Your task to perform on an android device: turn vacation reply on in the gmail app Image 0: 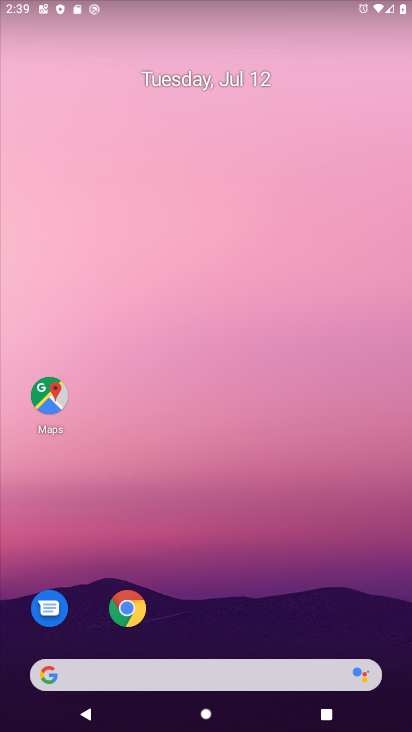
Step 0: drag from (312, 591) to (161, 79)
Your task to perform on an android device: turn vacation reply on in the gmail app Image 1: 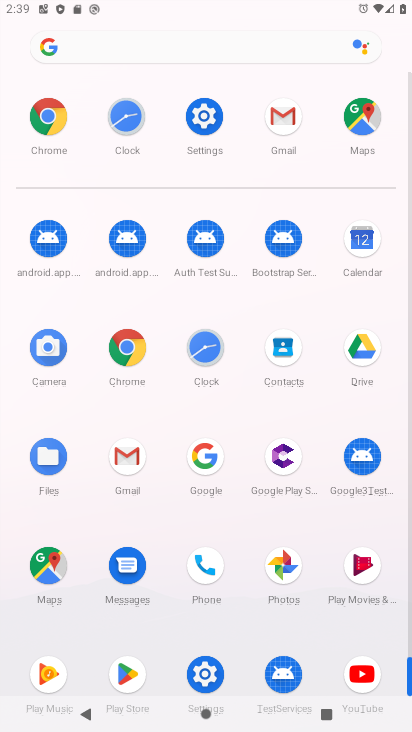
Step 1: click (272, 110)
Your task to perform on an android device: turn vacation reply on in the gmail app Image 2: 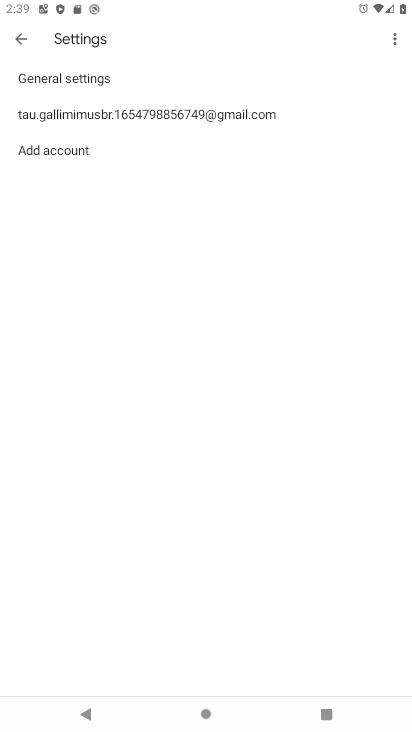
Step 2: click (198, 124)
Your task to perform on an android device: turn vacation reply on in the gmail app Image 3: 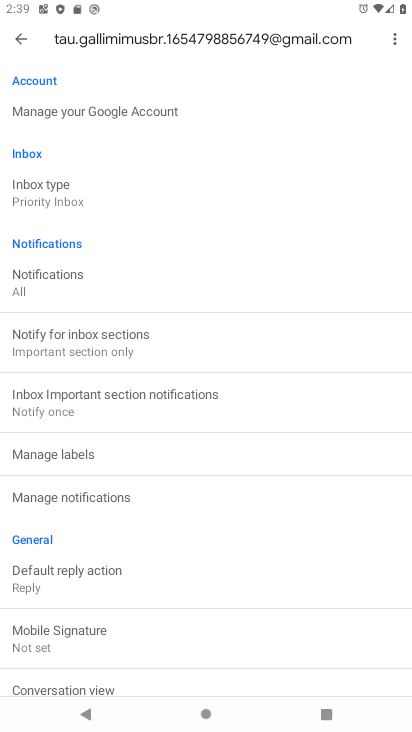
Step 3: drag from (92, 640) to (130, 170)
Your task to perform on an android device: turn vacation reply on in the gmail app Image 4: 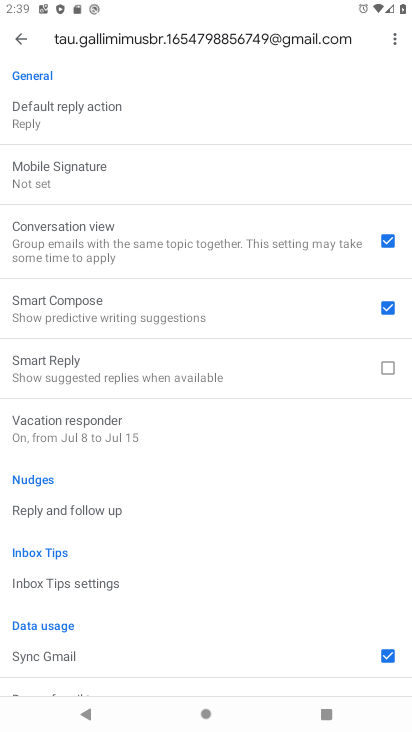
Step 4: click (134, 439)
Your task to perform on an android device: turn vacation reply on in the gmail app Image 5: 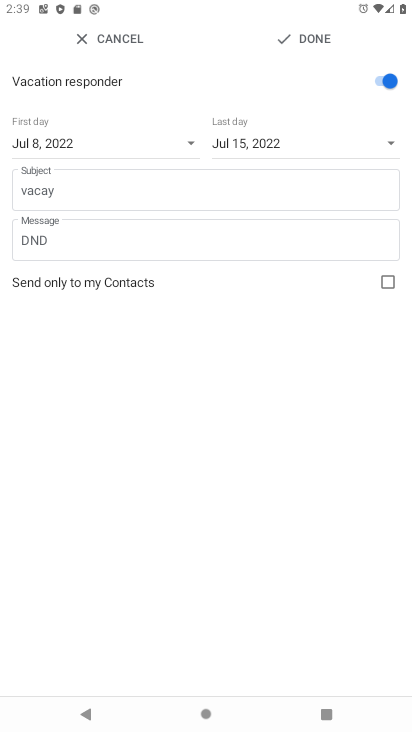
Step 5: task complete